Your task to perform on an android device: Open Reddit.com Image 0: 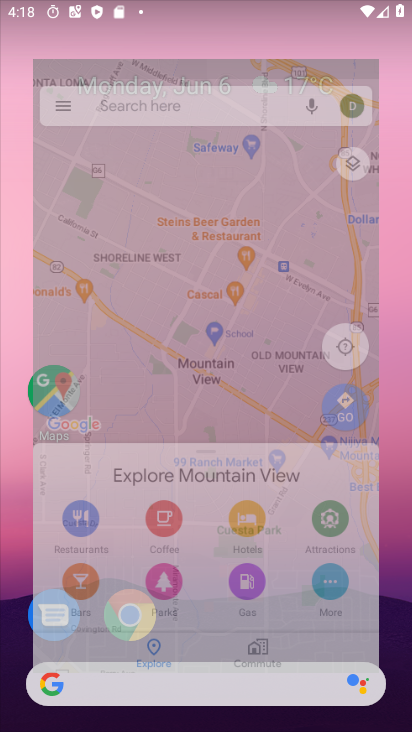
Step 0: drag from (333, 701) to (348, 26)
Your task to perform on an android device: Open Reddit.com Image 1: 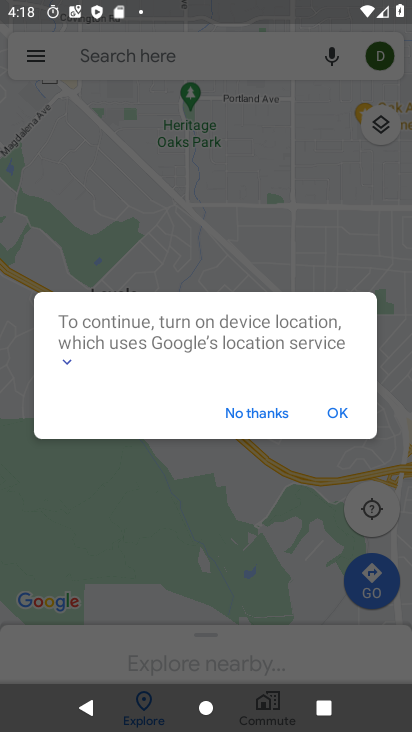
Step 1: press home button
Your task to perform on an android device: Open Reddit.com Image 2: 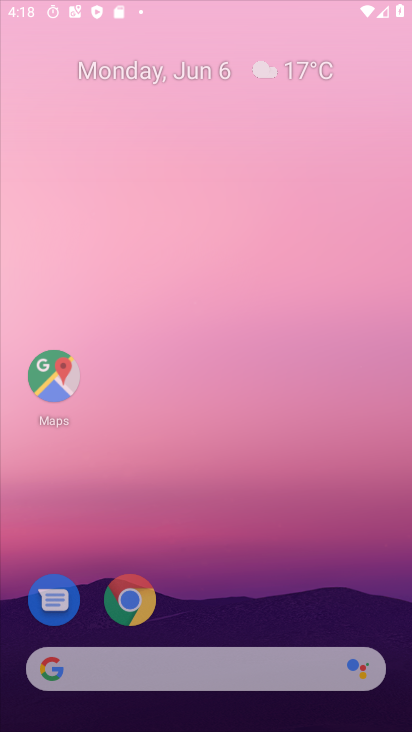
Step 2: click (349, 412)
Your task to perform on an android device: Open Reddit.com Image 3: 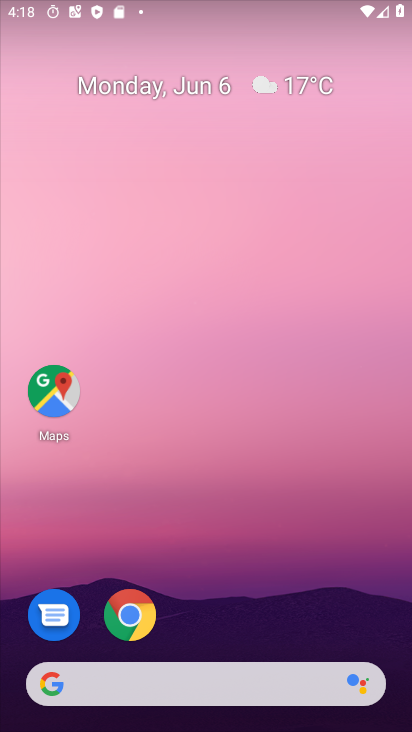
Step 3: drag from (333, 674) to (307, 58)
Your task to perform on an android device: Open Reddit.com Image 4: 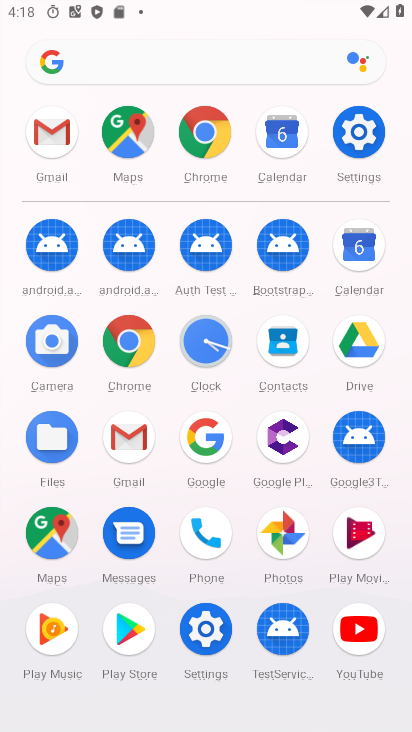
Step 4: click (122, 348)
Your task to perform on an android device: Open Reddit.com Image 5: 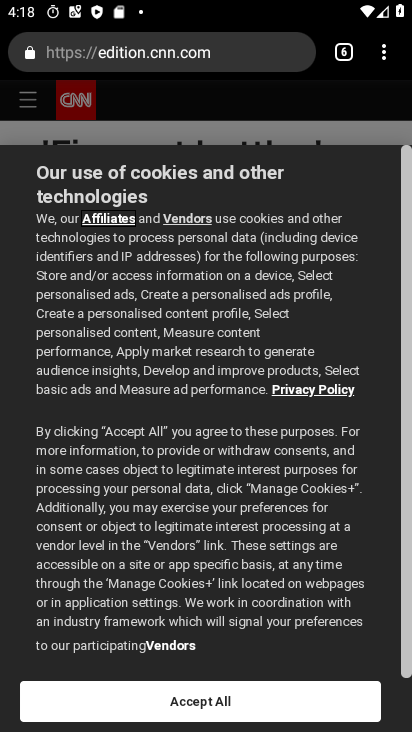
Step 5: drag from (388, 54) to (202, 107)
Your task to perform on an android device: Open Reddit.com Image 6: 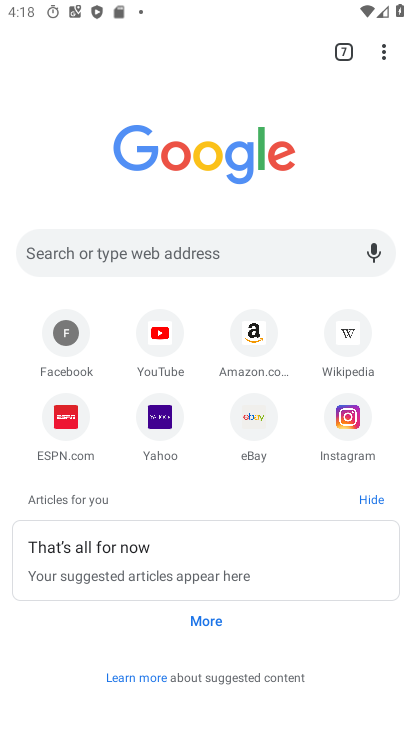
Step 6: drag from (207, 659) to (217, 609)
Your task to perform on an android device: Open Reddit.com Image 7: 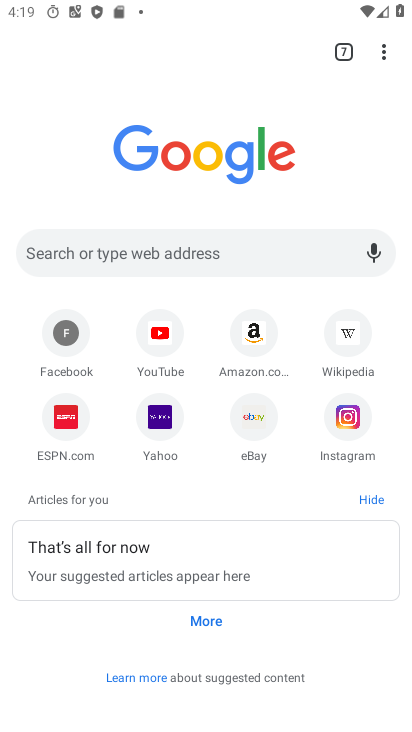
Step 7: click (219, 234)
Your task to perform on an android device: Open Reddit.com Image 8: 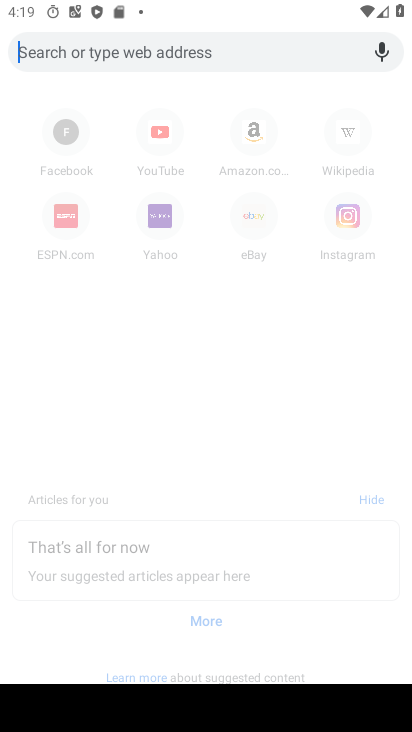
Step 8: type "reddit.com"
Your task to perform on an android device: Open Reddit.com Image 9: 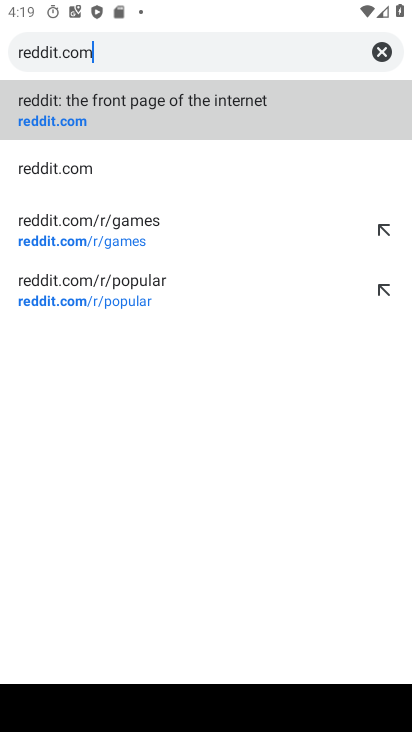
Step 9: click (159, 126)
Your task to perform on an android device: Open Reddit.com Image 10: 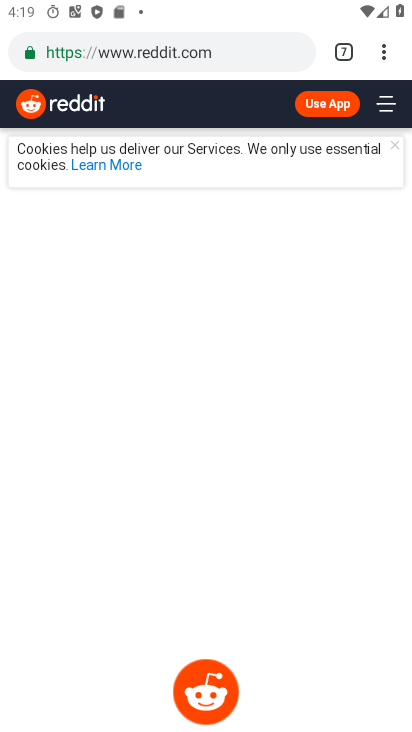
Step 10: task complete